Your task to perform on an android device: Add acer nitro to the cart on walmart, then select checkout. Image 0: 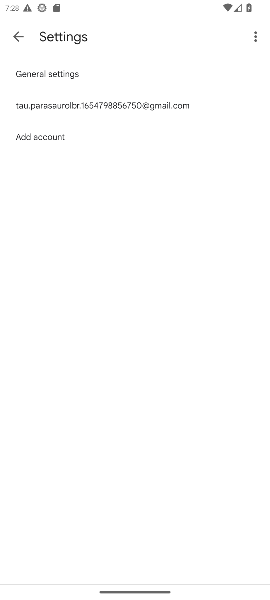
Step 0: press home button
Your task to perform on an android device: Add acer nitro to the cart on walmart, then select checkout. Image 1: 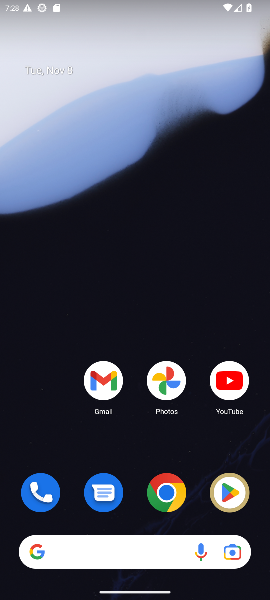
Step 1: click (165, 493)
Your task to perform on an android device: Add acer nitro to the cart on walmart, then select checkout. Image 2: 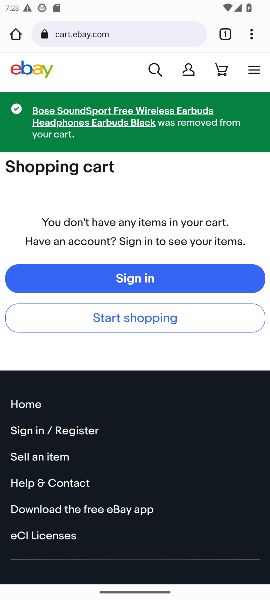
Step 2: click (149, 33)
Your task to perform on an android device: Add acer nitro to the cart on walmart, then select checkout. Image 3: 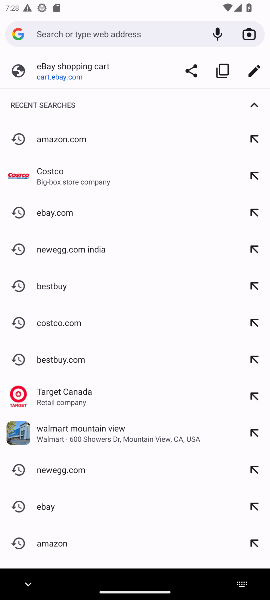
Step 3: type "walmart"
Your task to perform on an android device: Add acer nitro to the cart on walmart, then select checkout. Image 4: 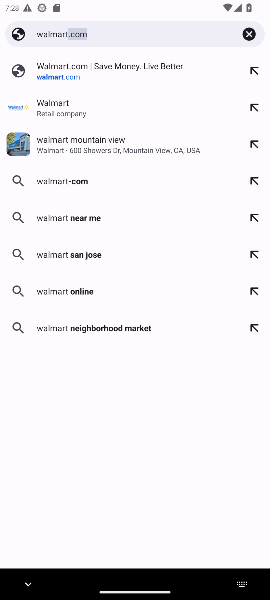
Step 4: click (196, 30)
Your task to perform on an android device: Add acer nitro to the cart on walmart, then select checkout. Image 5: 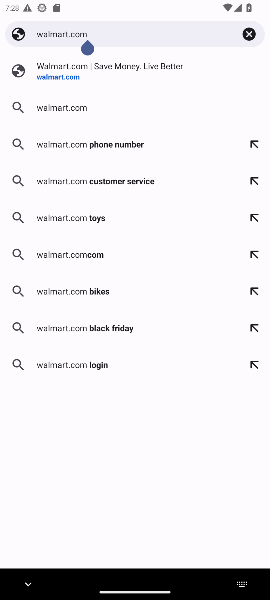
Step 5: click (67, 106)
Your task to perform on an android device: Add acer nitro to the cart on walmart, then select checkout. Image 6: 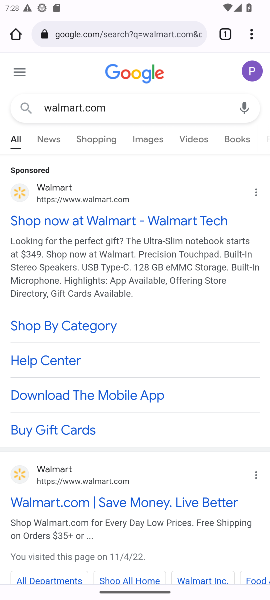
Step 6: click (84, 200)
Your task to perform on an android device: Add acer nitro to the cart on walmart, then select checkout. Image 7: 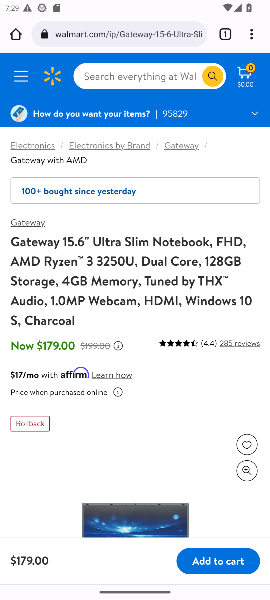
Step 7: drag from (177, 417) to (202, 103)
Your task to perform on an android device: Add acer nitro to the cart on walmart, then select checkout. Image 8: 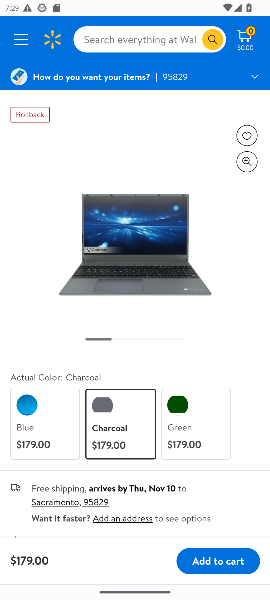
Step 8: click (236, 557)
Your task to perform on an android device: Add acer nitro to the cart on walmart, then select checkout. Image 9: 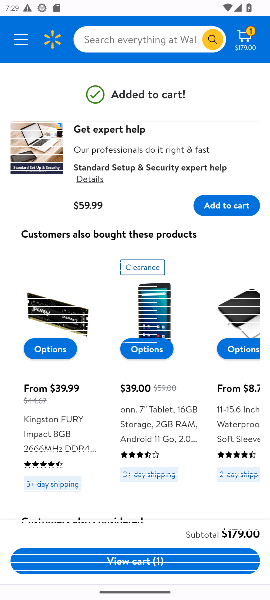
Step 9: click (245, 41)
Your task to perform on an android device: Add acer nitro to the cart on walmart, then select checkout. Image 10: 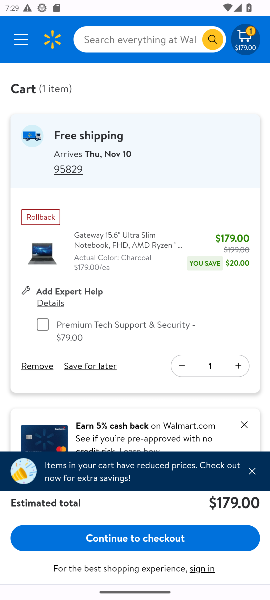
Step 10: click (126, 538)
Your task to perform on an android device: Add acer nitro to the cart on walmart, then select checkout. Image 11: 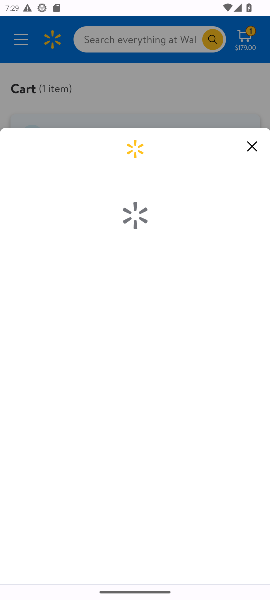
Step 11: task complete